Your task to perform on an android device: change keyboard looks Image 0: 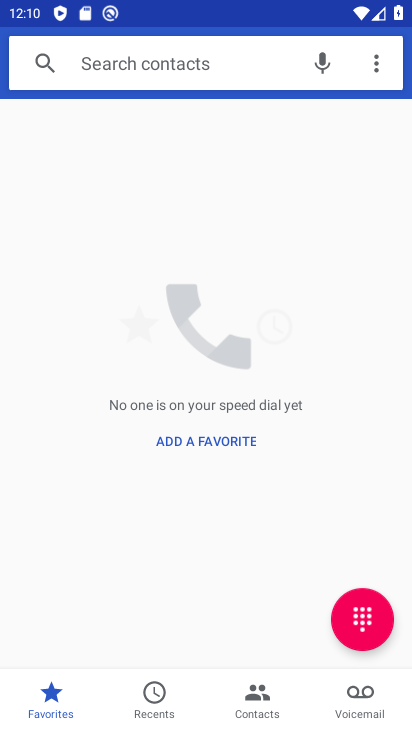
Step 0: press home button
Your task to perform on an android device: change keyboard looks Image 1: 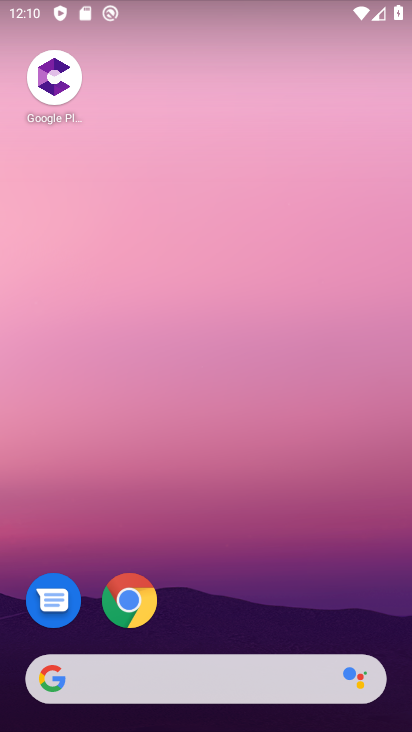
Step 1: drag from (283, 640) to (283, 166)
Your task to perform on an android device: change keyboard looks Image 2: 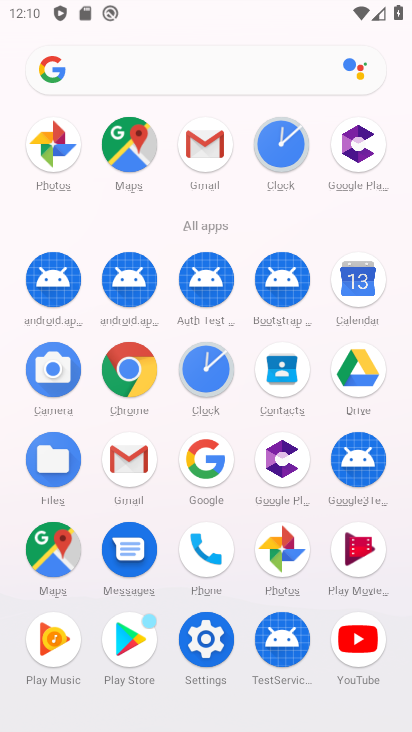
Step 2: click (203, 665)
Your task to perform on an android device: change keyboard looks Image 3: 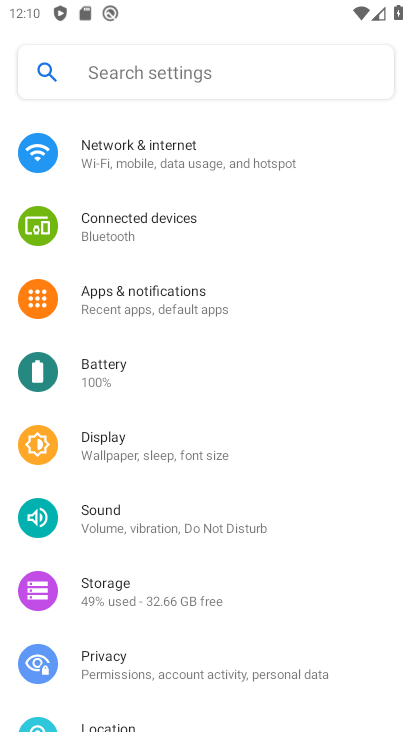
Step 3: drag from (230, 481) to (282, 225)
Your task to perform on an android device: change keyboard looks Image 4: 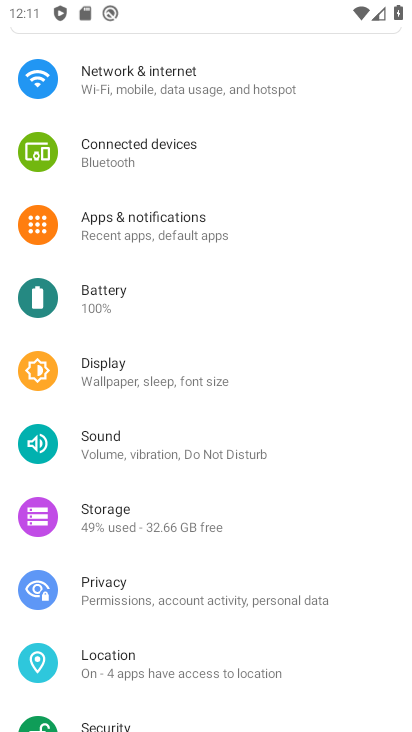
Step 4: drag from (266, 654) to (277, 302)
Your task to perform on an android device: change keyboard looks Image 5: 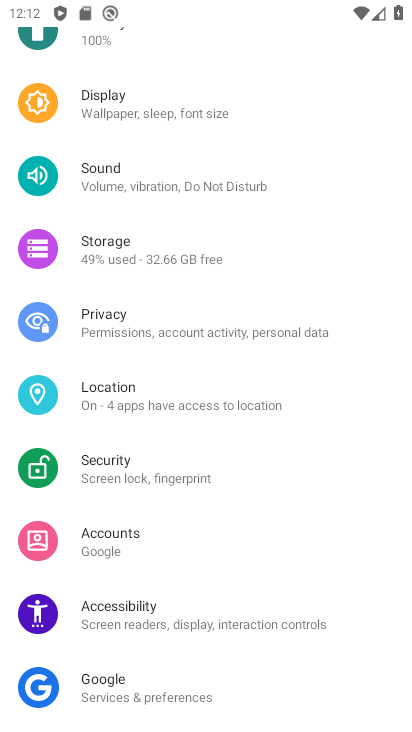
Step 5: drag from (251, 665) to (273, 378)
Your task to perform on an android device: change keyboard looks Image 6: 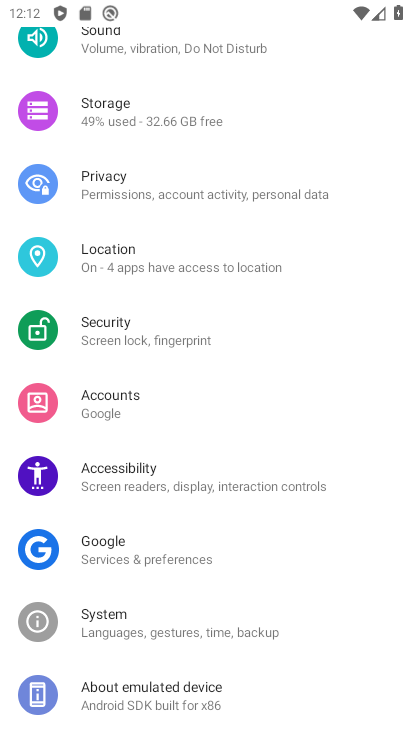
Step 6: click (196, 685)
Your task to perform on an android device: change keyboard looks Image 7: 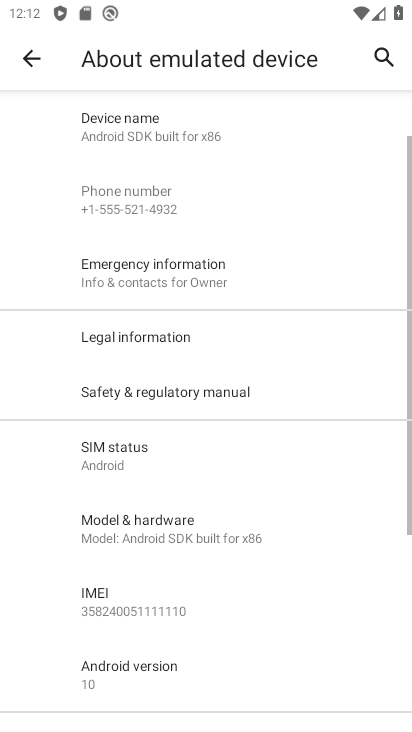
Step 7: click (29, 66)
Your task to perform on an android device: change keyboard looks Image 8: 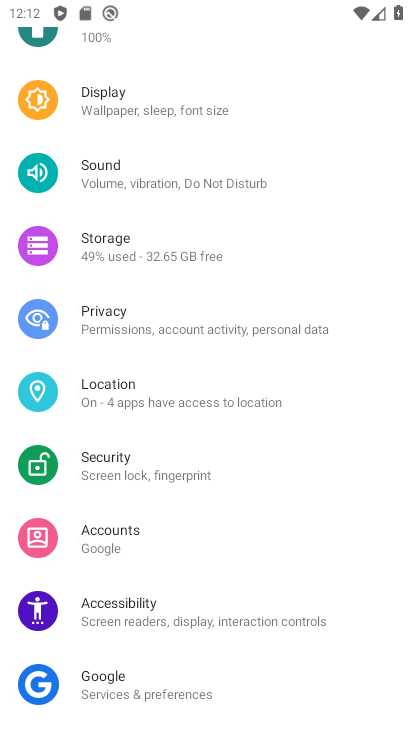
Step 8: click (140, 632)
Your task to perform on an android device: change keyboard looks Image 9: 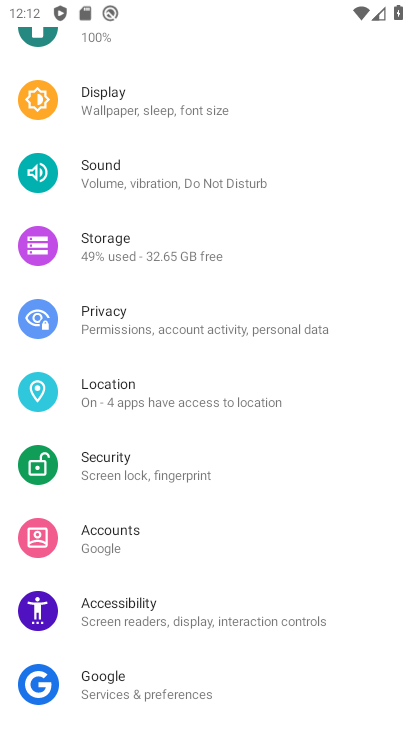
Step 9: drag from (156, 496) to (166, 275)
Your task to perform on an android device: change keyboard looks Image 10: 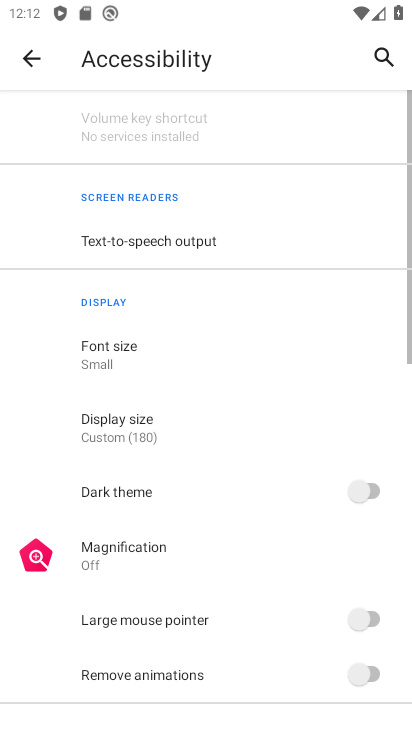
Step 10: click (37, 58)
Your task to perform on an android device: change keyboard looks Image 11: 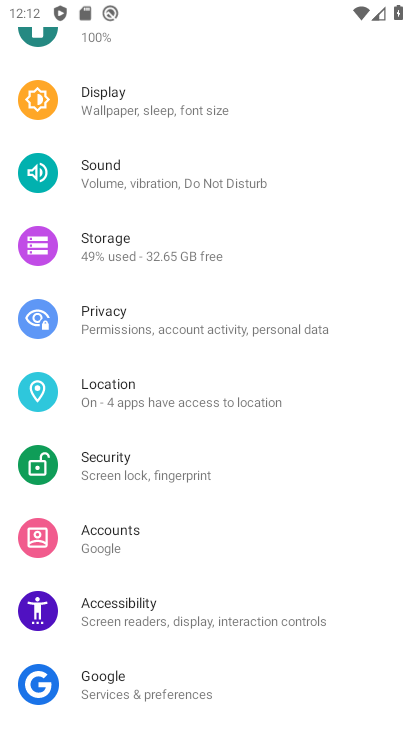
Step 11: drag from (148, 647) to (198, 310)
Your task to perform on an android device: change keyboard looks Image 12: 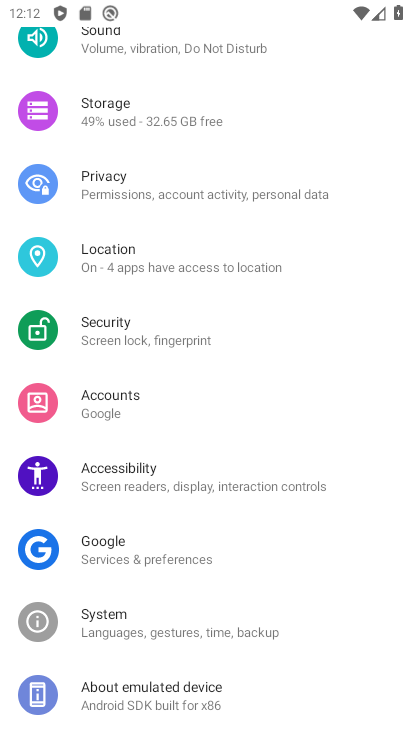
Step 12: click (186, 618)
Your task to perform on an android device: change keyboard looks Image 13: 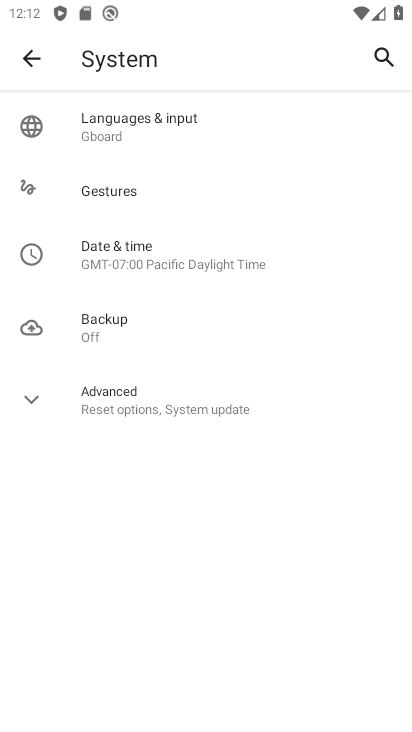
Step 13: click (160, 129)
Your task to perform on an android device: change keyboard looks Image 14: 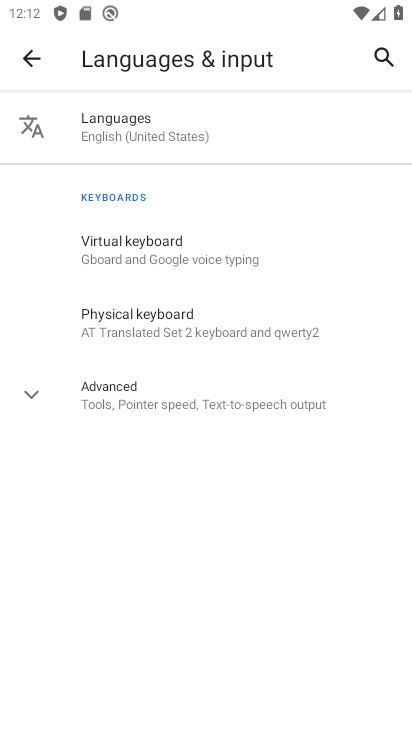
Step 14: click (183, 280)
Your task to perform on an android device: change keyboard looks Image 15: 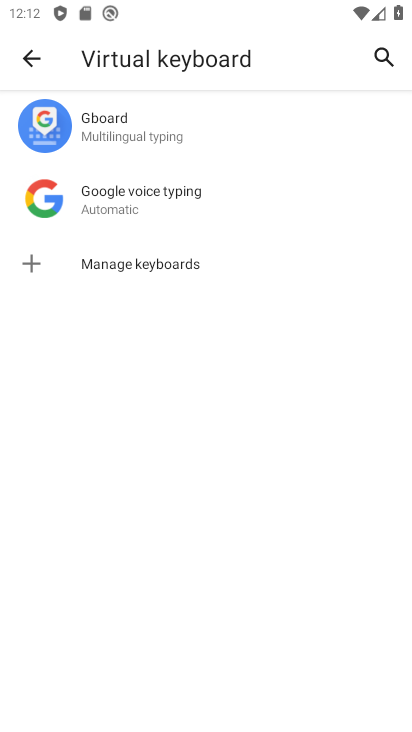
Step 15: click (118, 120)
Your task to perform on an android device: change keyboard looks Image 16: 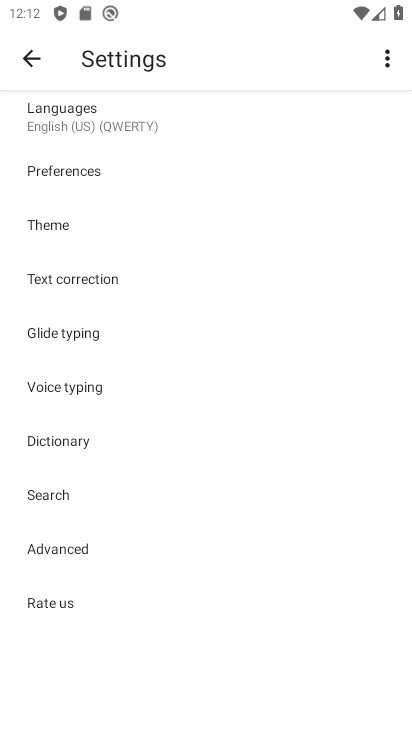
Step 16: click (110, 244)
Your task to perform on an android device: change keyboard looks Image 17: 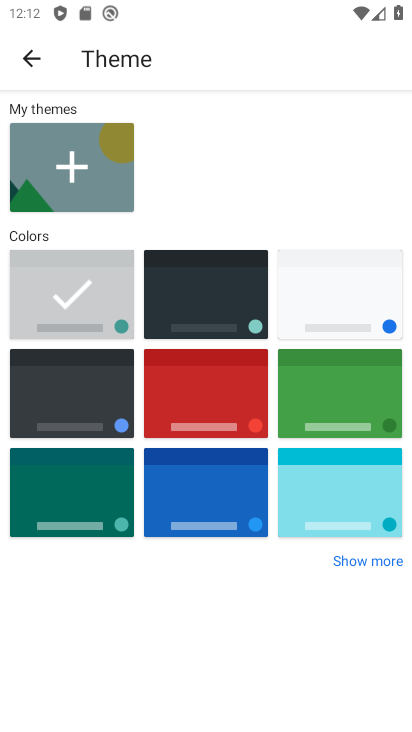
Step 17: click (222, 311)
Your task to perform on an android device: change keyboard looks Image 18: 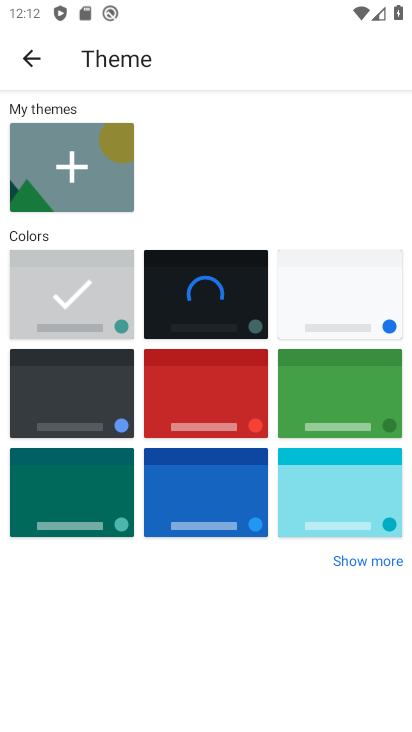
Step 18: task complete